Your task to perform on an android device: Open settings on Google Maps Image 0: 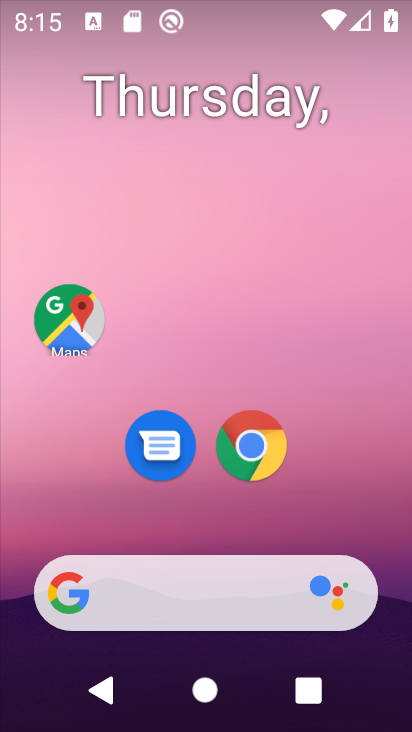
Step 0: click (74, 325)
Your task to perform on an android device: Open settings on Google Maps Image 1: 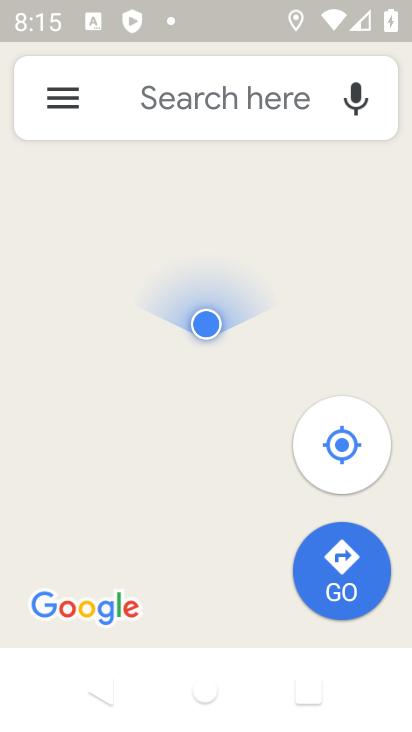
Step 1: task complete